Your task to perform on an android device: What's on my calendar today? Image 0: 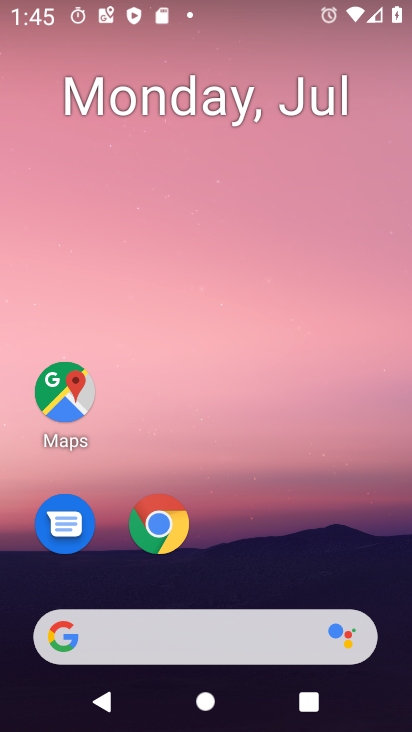
Step 0: drag from (332, 554) to (296, 122)
Your task to perform on an android device: What's on my calendar today? Image 1: 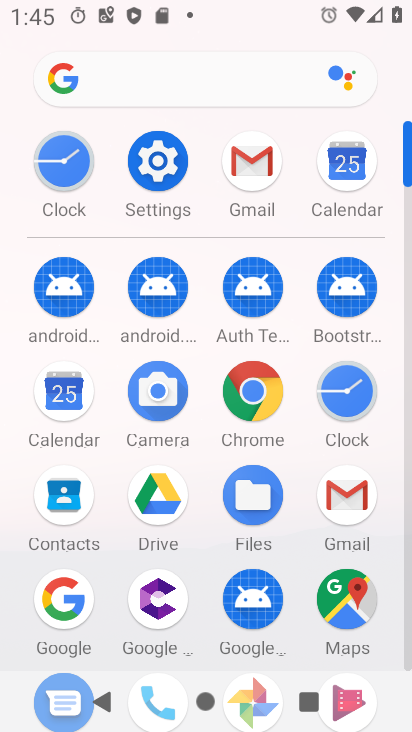
Step 1: click (57, 405)
Your task to perform on an android device: What's on my calendar today? Image 2: 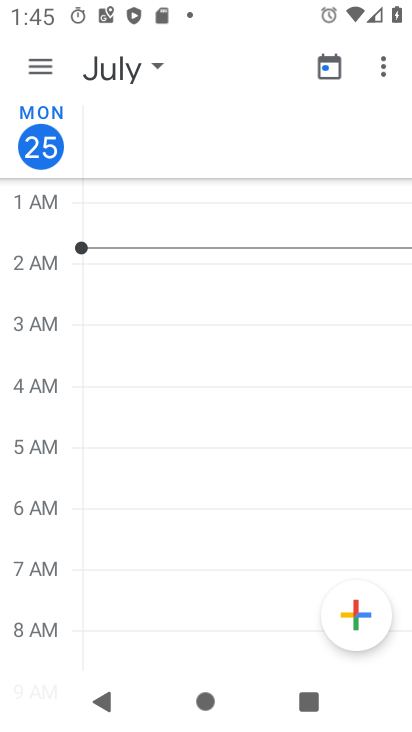
Step 2: click (53, 152)
Your task to perform on an android device: What's on my calendar today? Image 3: 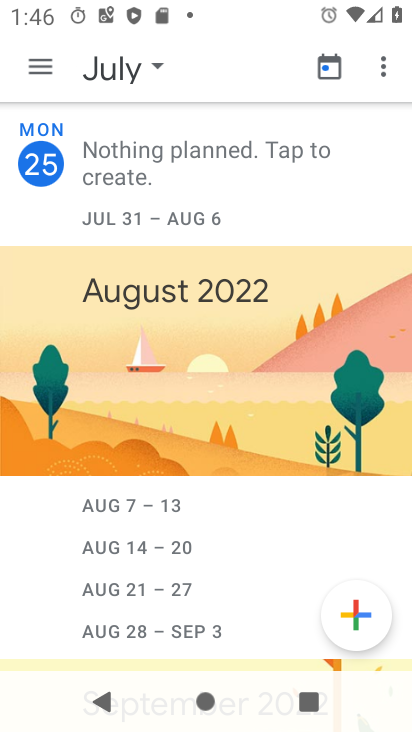
Step 3: task complete